Your task to perform on an android device: turn off priority inbox in the gmail app Image 0: 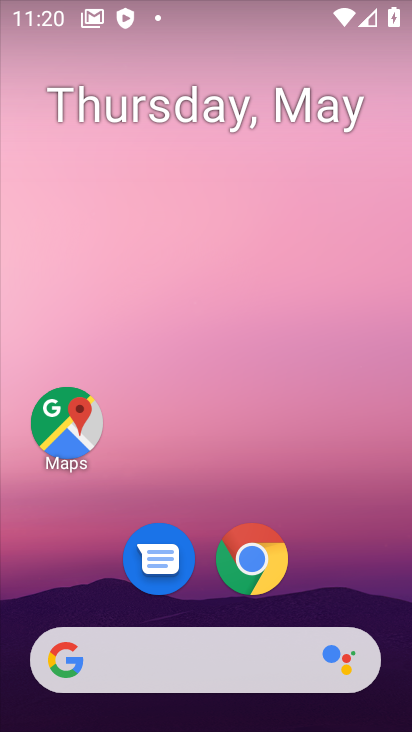
Step 0: drag from (206, 712) to (196, 232)
Your task to perform on an android device: turn off priority inbox in the gmail app Image 1: 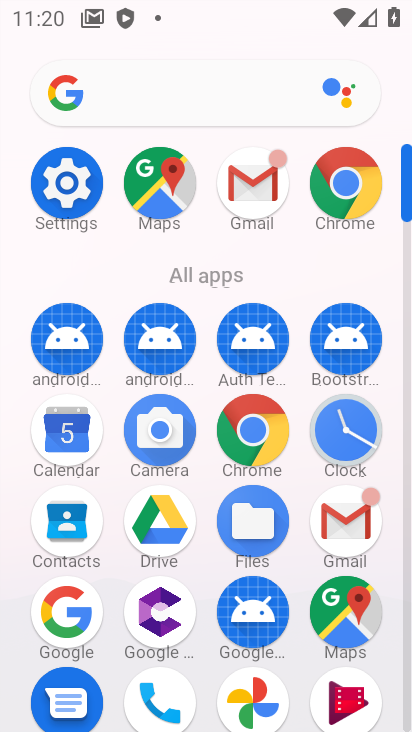
Step 1: click (262, 177)
Your task to perform on an android device: turn off priority inbox in the gmail app Image 2: 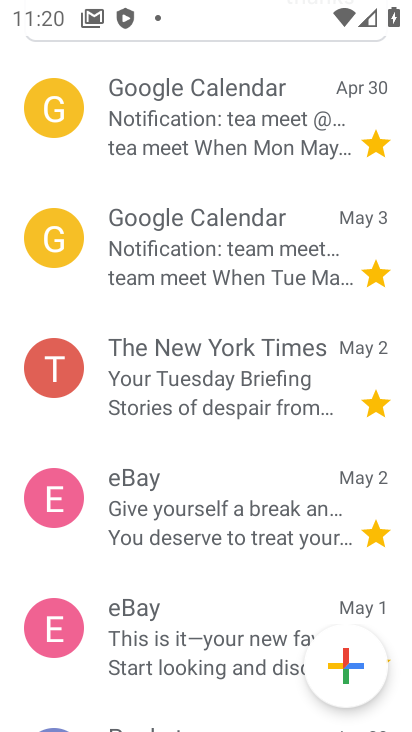
Step 2: drag from (213, 134) to (227, 459)
Your task to perform on an android device: turn off priority inbox in the gmail app Image 3: 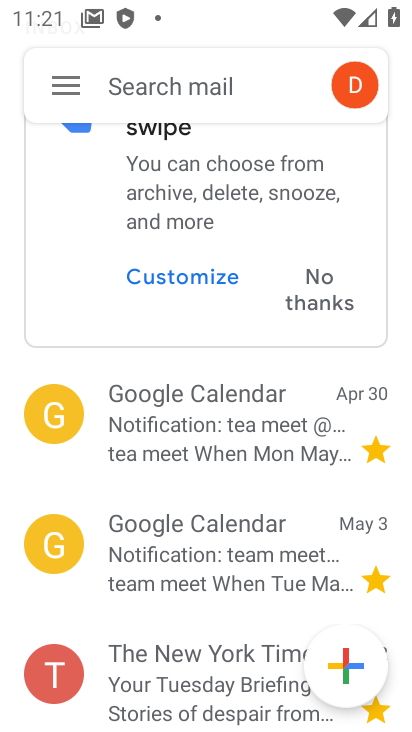
Step 3: click (67, 86)
Your task to perform on an android device: turn off priority inbox in the gmail app Image 4: 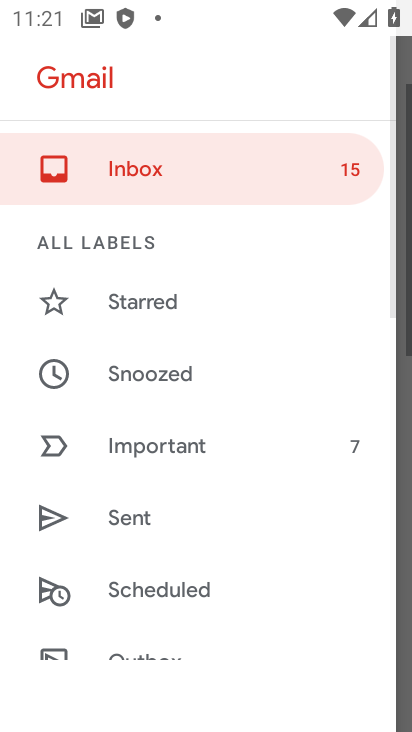
Step 4: drag from (187, 649) to (191, 279)
Your task to perform on an android device: turn off priority inbox in the gmail app Image 5: 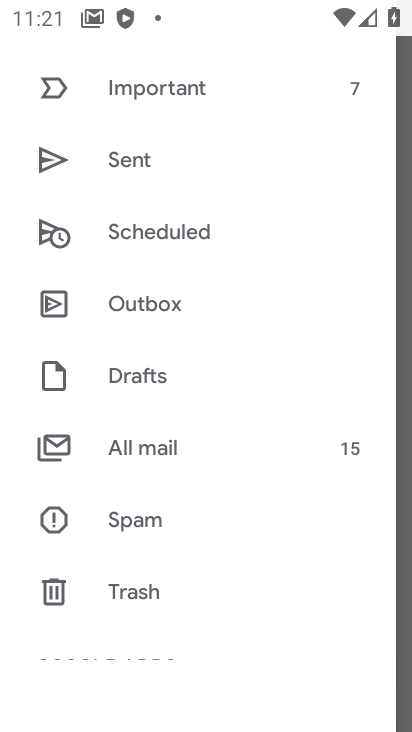
Step 5: drag from (194, 670) to (197, 309)
Your task to perform on an android device: turn off priority inbox in the gmail app Image 6: 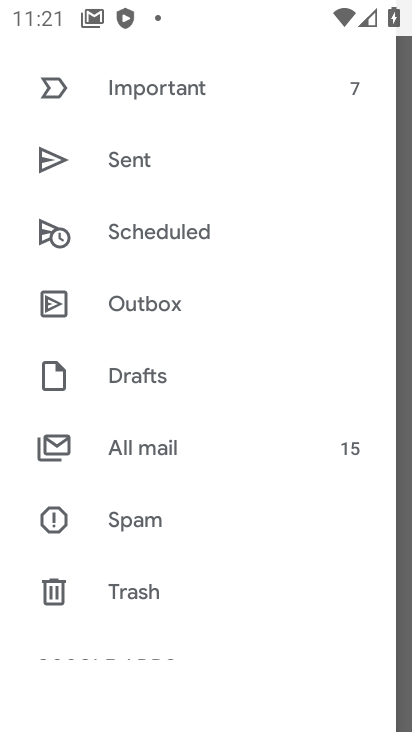
Step 6: drag from (139, 619) to (136, 345)
Your task to perform on an android device: turn off priority inbox in the gmail app Image 7: 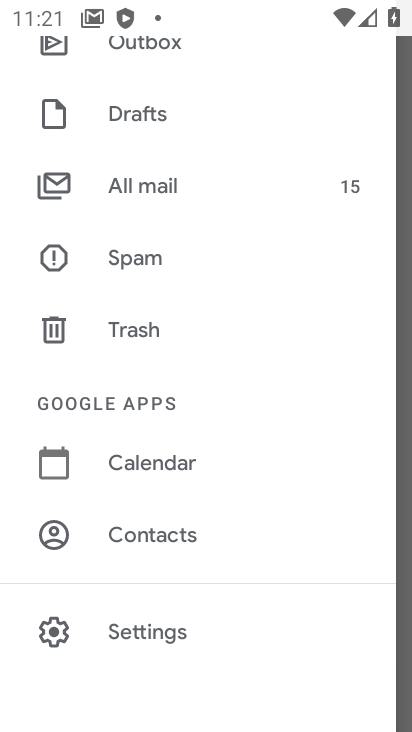
Step 7: click (168, 629)
Your task to perform on an android device: turn off priority inbox in the gmail app Image 8: 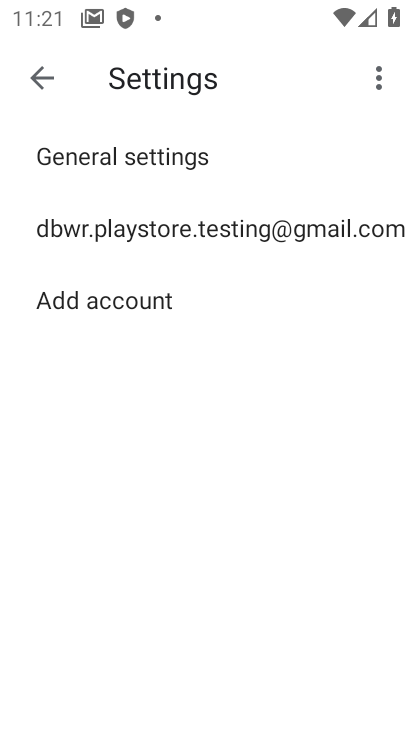
Step 8: click (142, 229)
Your task to perform on an android device: turn off priority inbox in the gmail app Image 9: 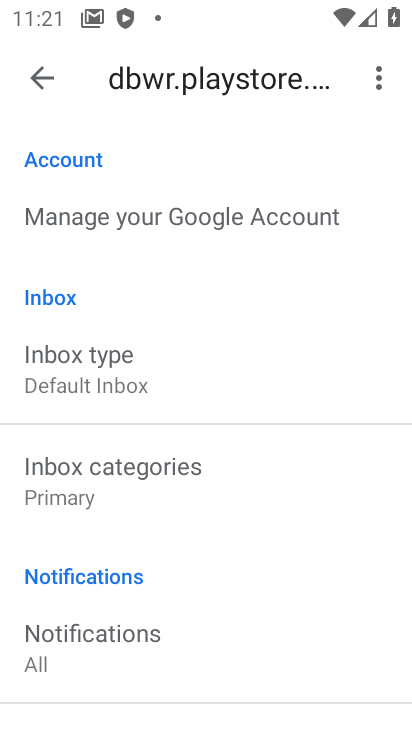
Step 9: click (97, 380)
Your task to perform on an android device: turn off priority inbox in the gmail app Image 10: 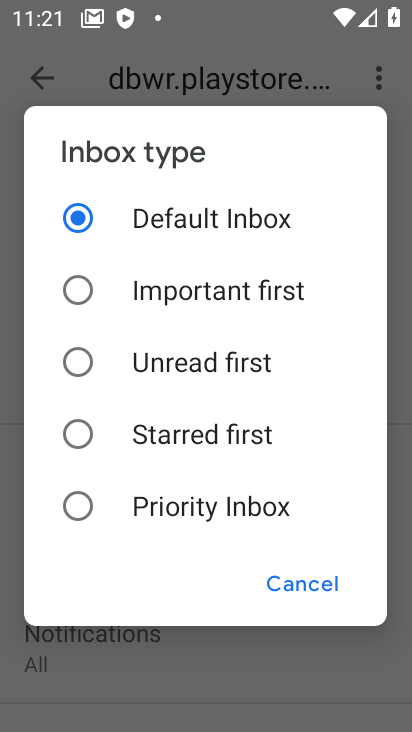
Step 10: click (298, 580)
Your task to perform on an android device: turn off priority inbox in the gmail app Image 11: 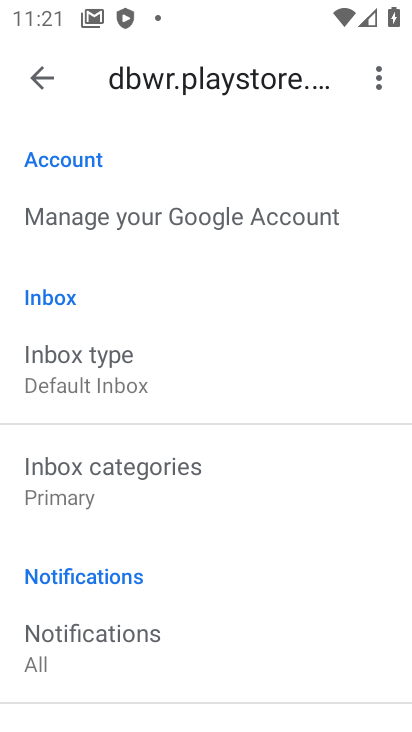
Step 11: task complete